Your task to perform on an android device: Open accessibility settings Image 0: 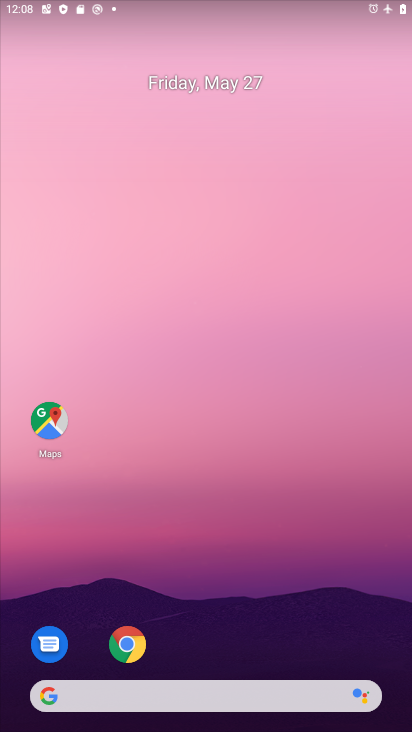
Step 0: drag from (216, 644) to (295, 21)
Your task to perform on an android device: Open accessibility settings Image 1: 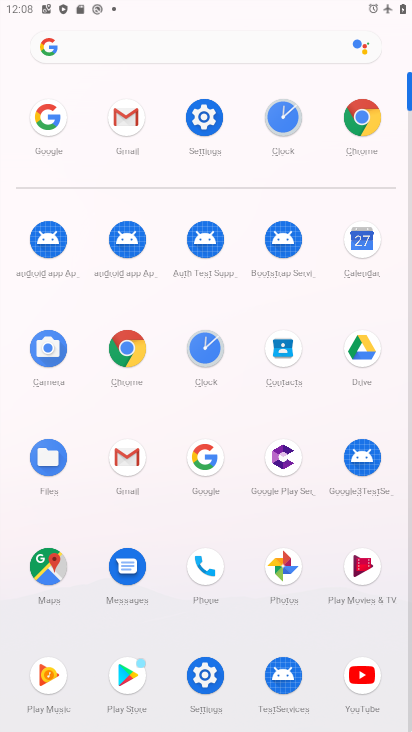
Step 1: click (211, 106)
Your task to perform on an android device: Open accessibility settings Image 2: 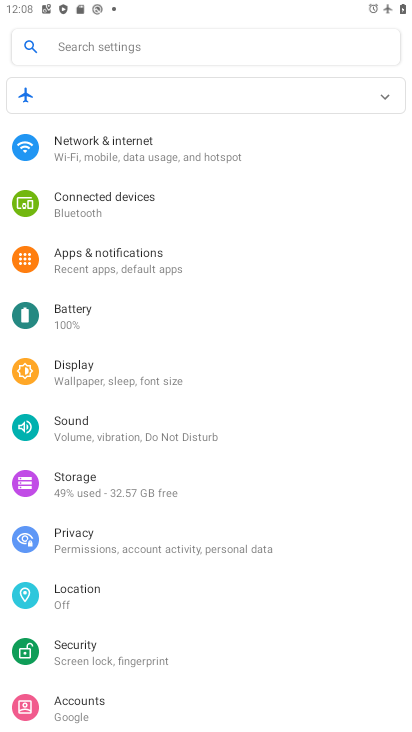
Step 2: drag from (279, 672) to (304, 315)
Your task to perform on an android device: Open accessibility settings Image 3: 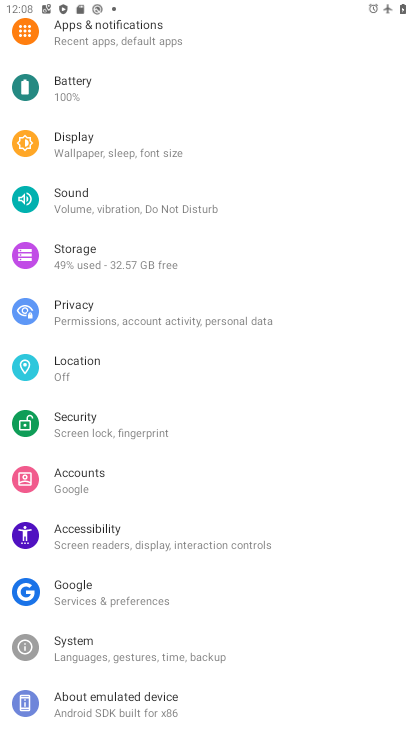
Step 3: click (154, 543)
Your task to perform on an android device: Open accessibility settings Image 4: 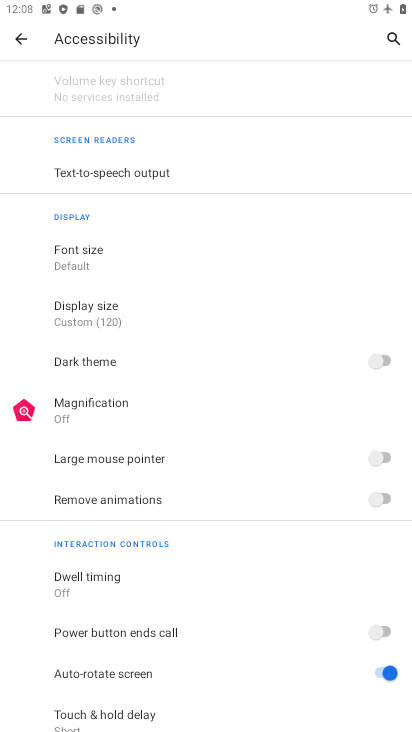
Step 4: task complete